Your task to perform on an android device: toggle location history Image 0: 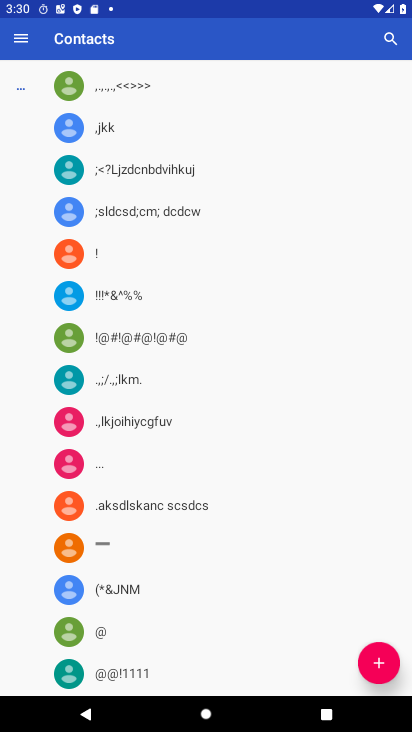
Step 0: press home button
Your task to perform on an android device: toggle location history Image 1: 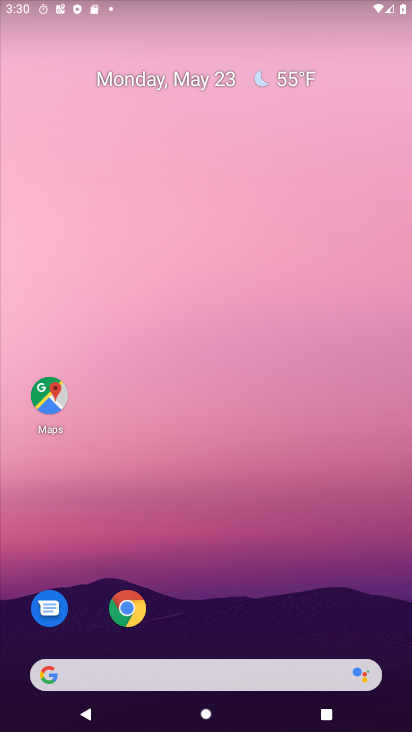
Step 1: drag from (348, 546) to (188, 37)
Your task to perform on an android device: toggle location history Image 2: 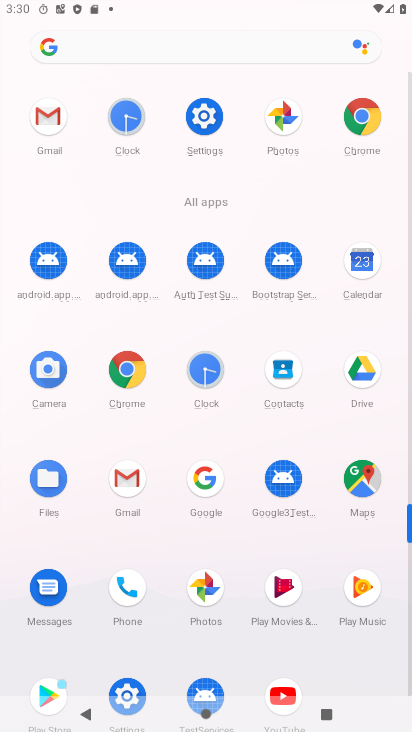
Step 2: click (189, 115)
Your task to perform on an android device: toggle location history Image 3: 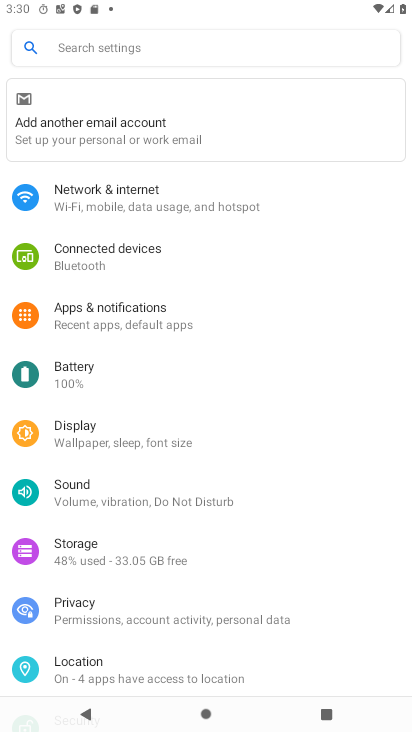
Step 3: click (191, 587)
Your task to perform on an android device: toggle location history Image 4: 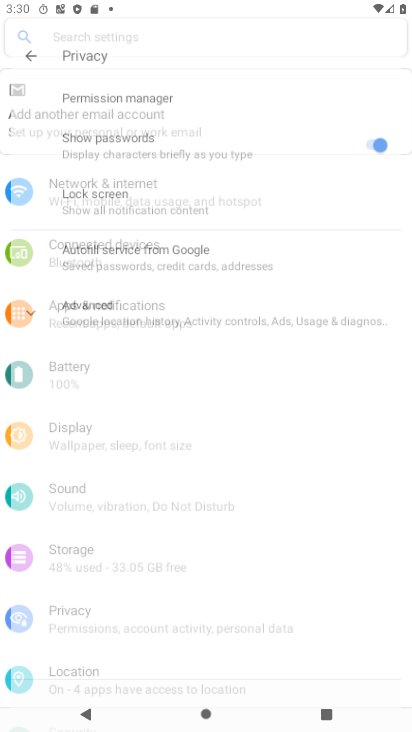
Step 4: press back button
Your task to perform on an android device: toggle location history Image 5: 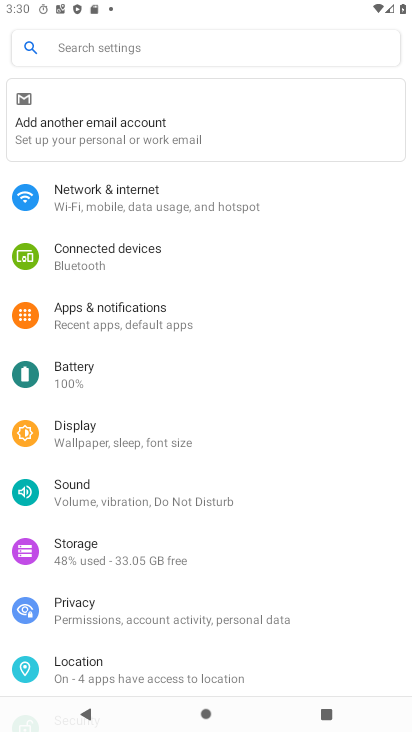
Step 5: click (152, 675)
Your task to perform on an android device: toggle location history Image 6: 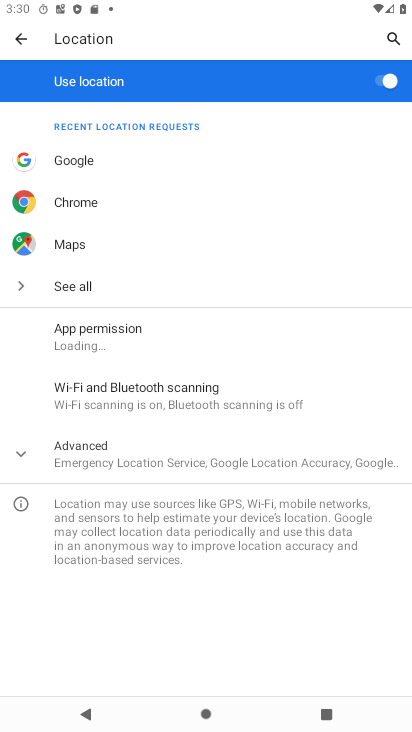
Step 6: click (177, 454)
Your task to perform on an android device: toggle location history Image 7: 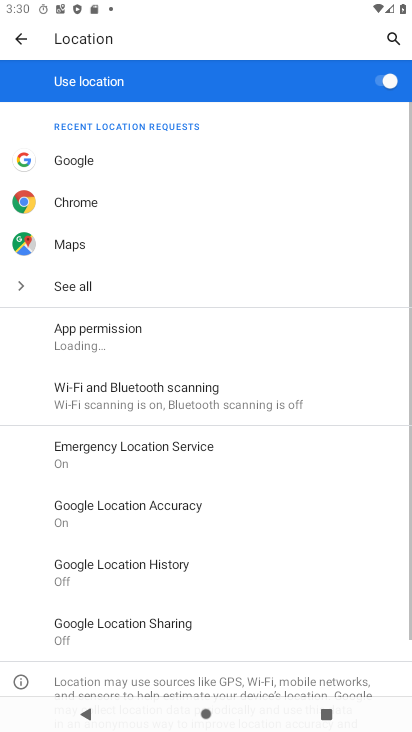
Step 7: drag from (214, 649) to (198, 281)
Your task to perform on an android device: toggle location history Image 8: 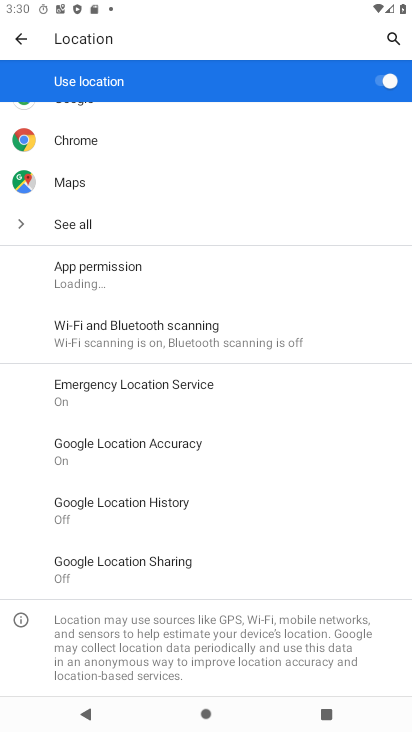
Step 8: click (142, 503)
Your task to perform on an android device: toggle location history Image 9: 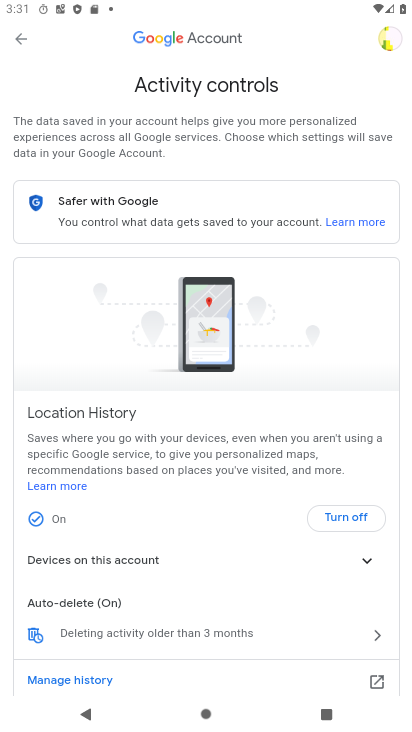
Step 9: click (366, 514)
Your task to perform on an android device: toggle location history Image 10: 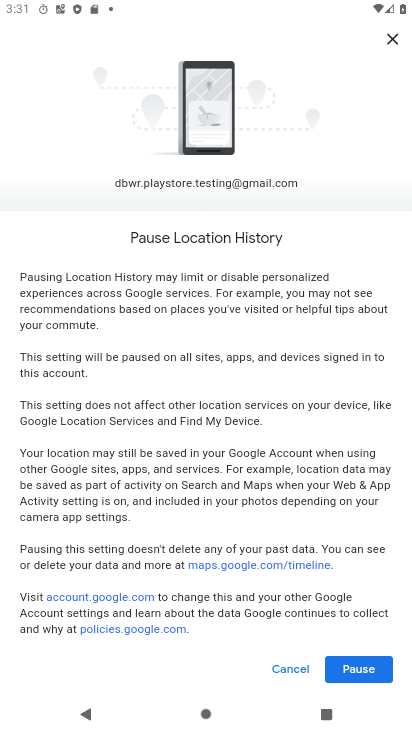
Step 10: click (387, 666)
Your task to perform on an android device: toggle location history Image 11: 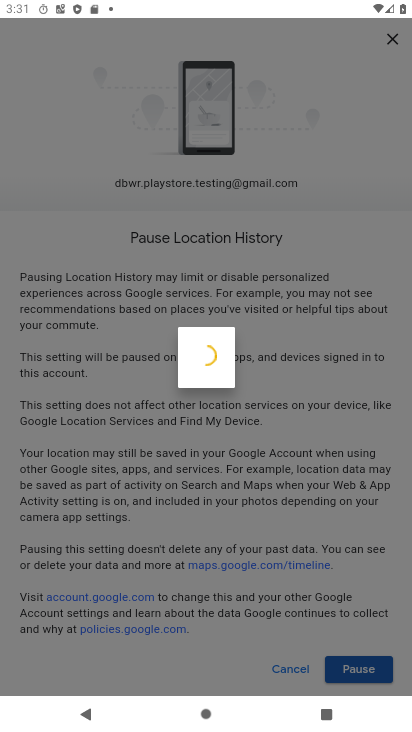
Step 11: drag from (296, 573) to (261, 207)
Your task to perform on an android device: toggle location history Image 12: 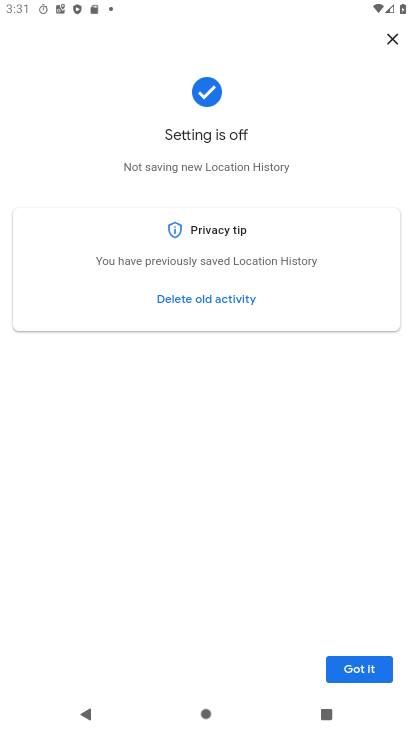
Step 12: click (366, 671)
Your task to perform on an android device: toggle location history Image 13: 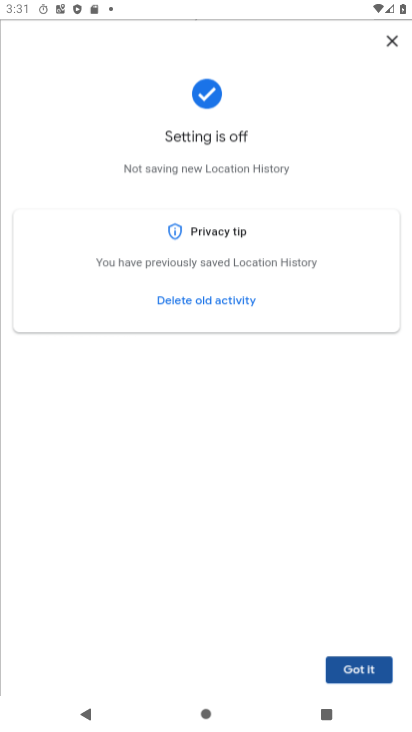
Step 13: task complete